Your task to perform on an android device: choose inbox layout in the gmail app Image 0: 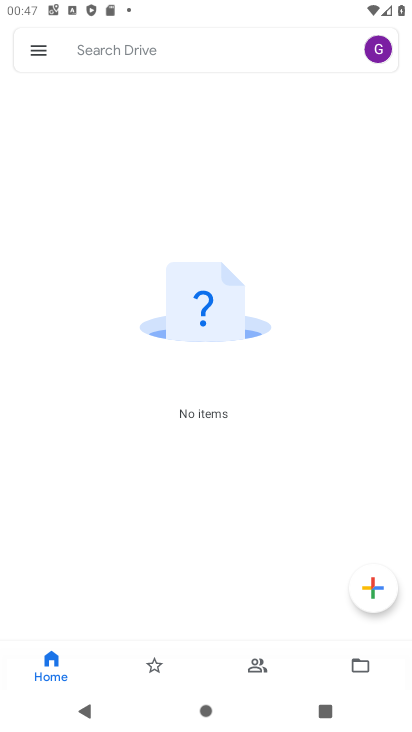
Step 0: press home button
Your task to perform on an android device: choose inbox layout in the gmail app Image 1: 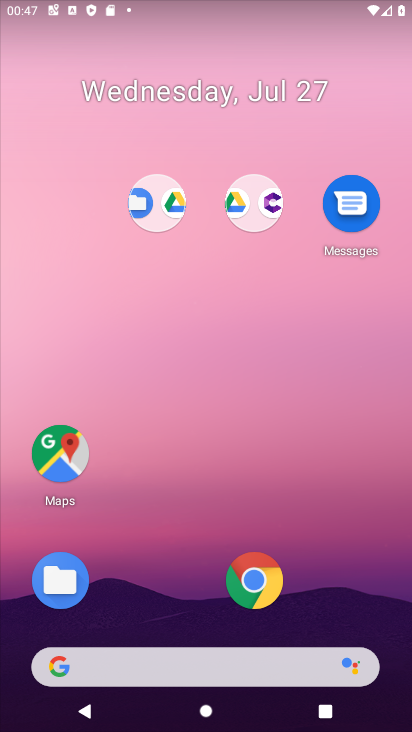
Step 1: drag from (191, 603) to (219, 68)
Your task to perform on an android device: choose inbox layout in the gmail app Image 2: 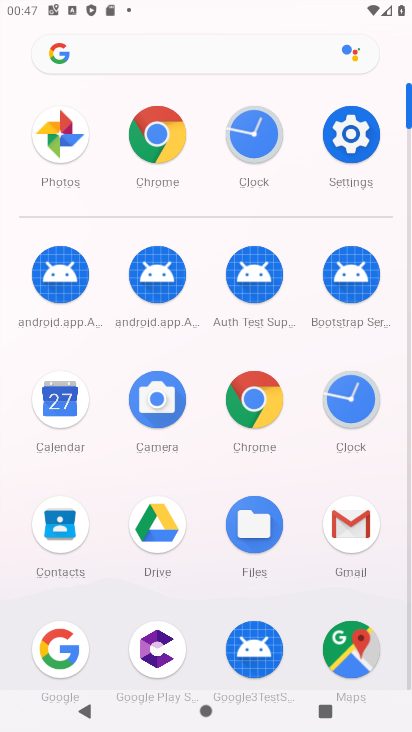
Step 2: click (346, 537)
Your task to perform on an android device: choose inbox layout in the gmail app Image 3: 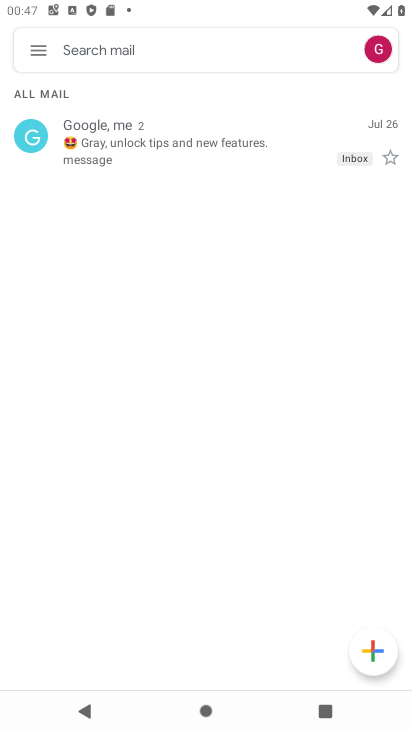
Step 3: click (34, 145)
Your task to perform on an android device: choose inbox layout in the gmail app Image 4: 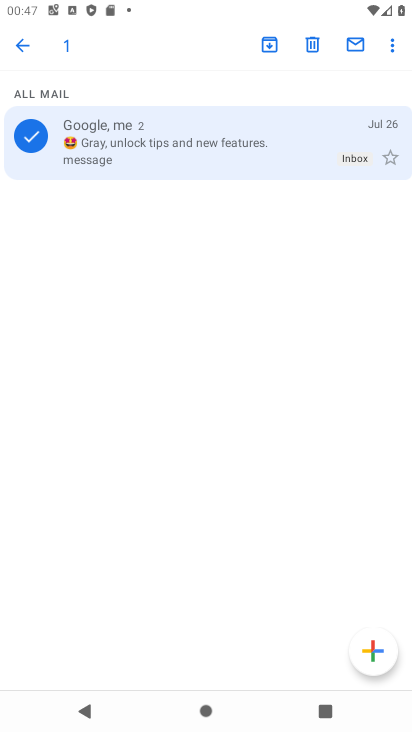
Step 4: click (396, 43)
Your task to perform on an android device: choose inbox layout in the gmail app Image 5: 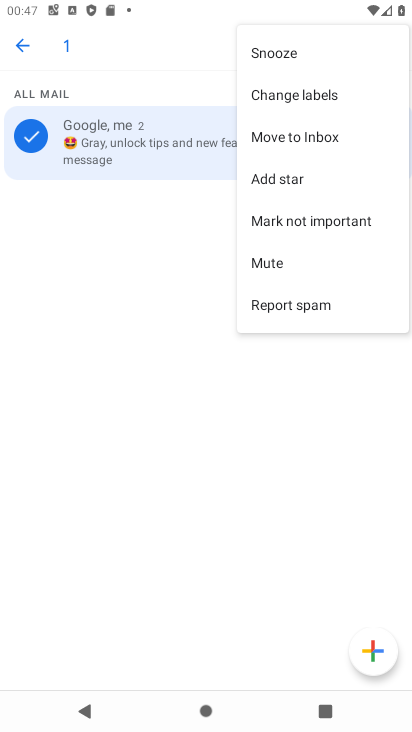
Step 5: click (287, 108)
Your task to perform on an android device: choose inbox layout in the gmail app Image 6: 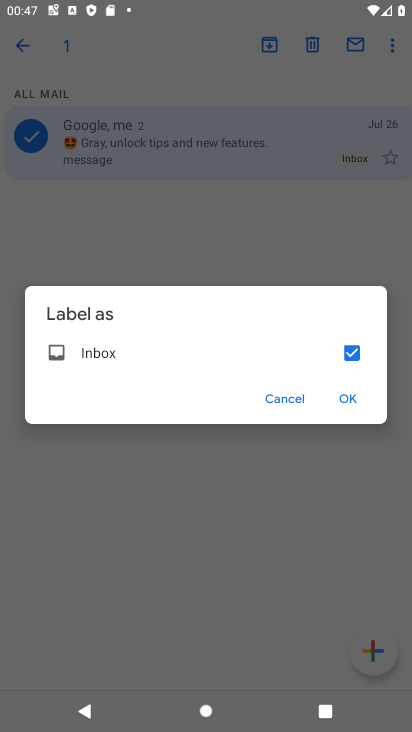
Step 6: click (350, 356)
Your task to perform on an android device: choose inbox layout in the gmail app Image 7: 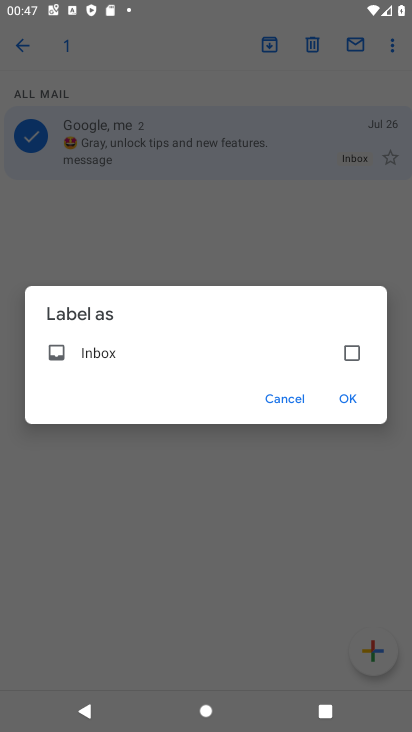
Step 7: click (350, 393)
Your task to perform on an android device: choose inbox layout in the gmail app Image 8: 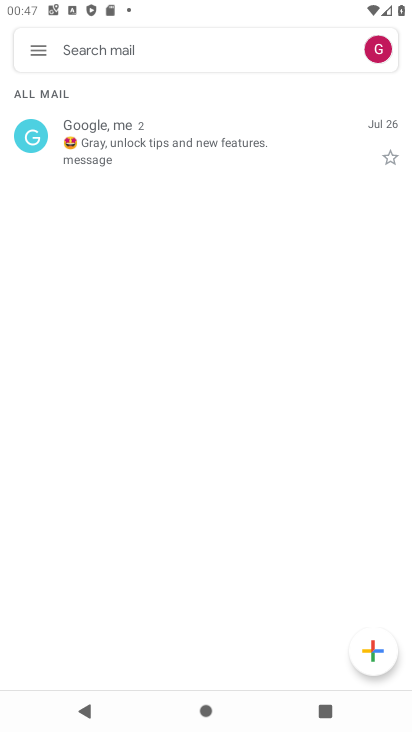
Step 8: task complete